Your task to perform on an android device: Open Google Maps and go to "Timeline" Image 0: 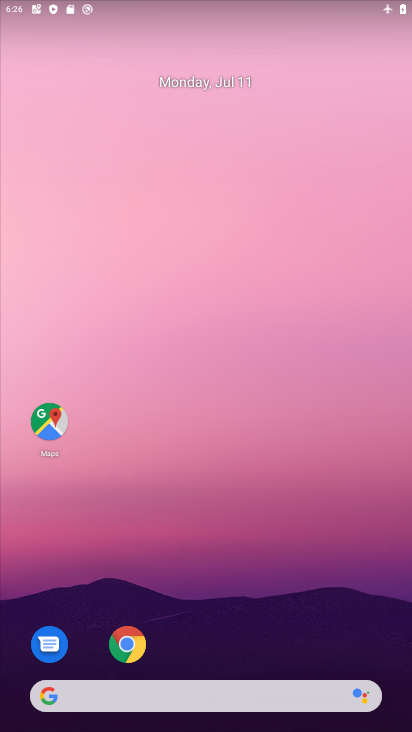
Step 0: drag from (273, 696) to (274, 74)
Your task to perform on an android device: Open Google Maps and go to "Timeline" Image 1: 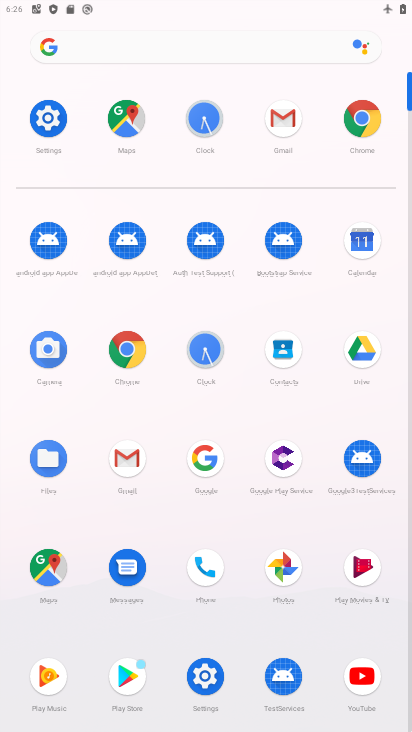
Step 1: click (58, 580)
Your task to perform on an android device: Open Google Maps and go to "Timeline" Image 2: 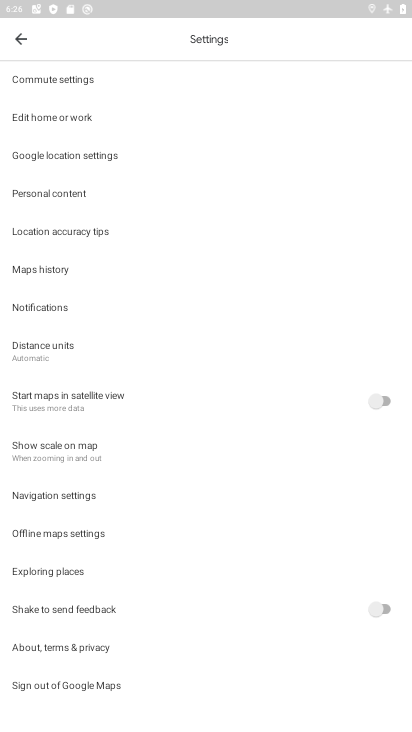
Step 2: press back button
Your task to perform on an android device: Open Google Maps and go to "Timeline" Image 3: 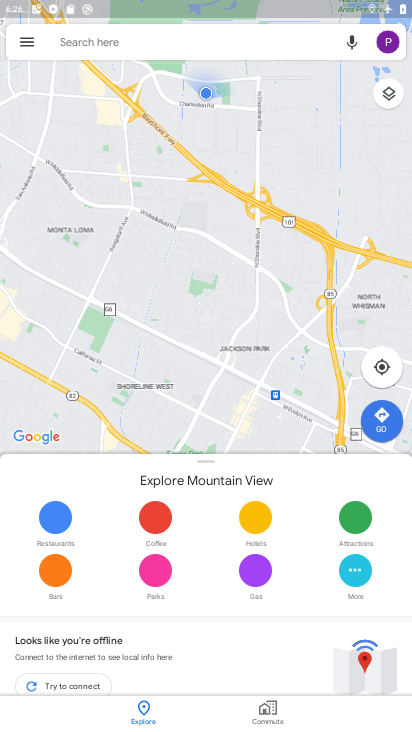
Step 3: click (32, 43)
Your task to perform on an android device: Open Google Maps and go to "Timeline" Image 4: 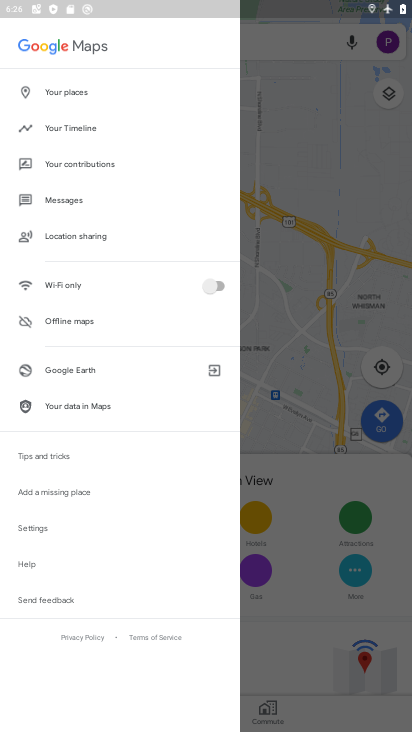
Step 4: click (83, 133)
Your task to perform on an android device: Open Google Maps and go to "Timeline" Image 5: 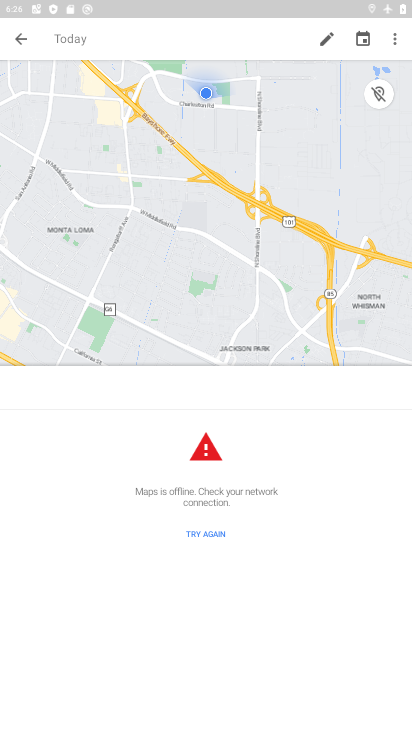
Step 5: task complete